Your task to perform on an android device: check out phone information Image 0: 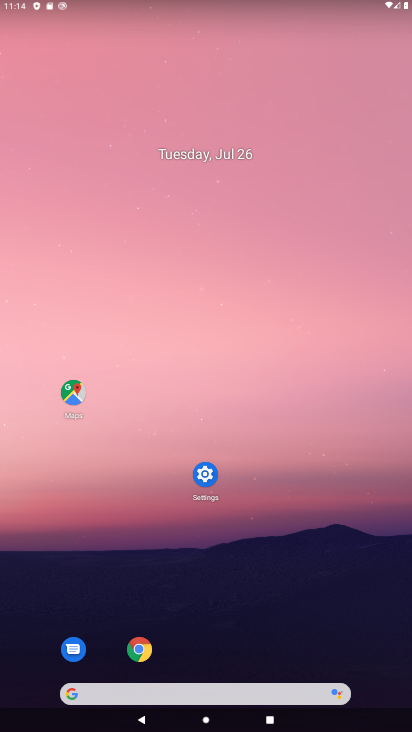
Step 0: drag from (305, 228) to (305, 119)
Your task to perform on an android device: check out phone information Image 1: 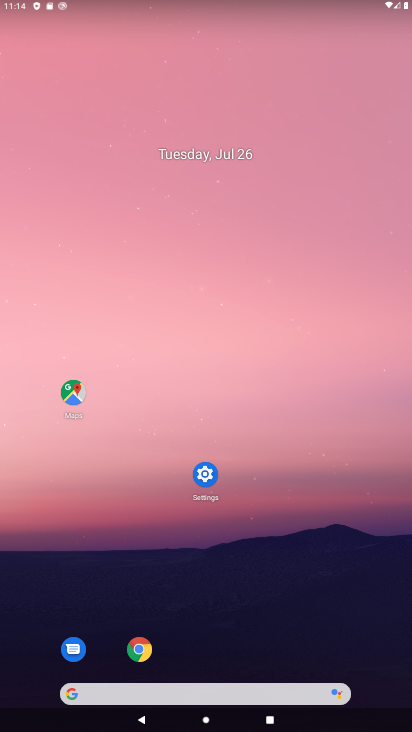
Step 1: drag from (257, 520) to (235, 68)
Your task to perform on an android device: check out phone information Image 2: 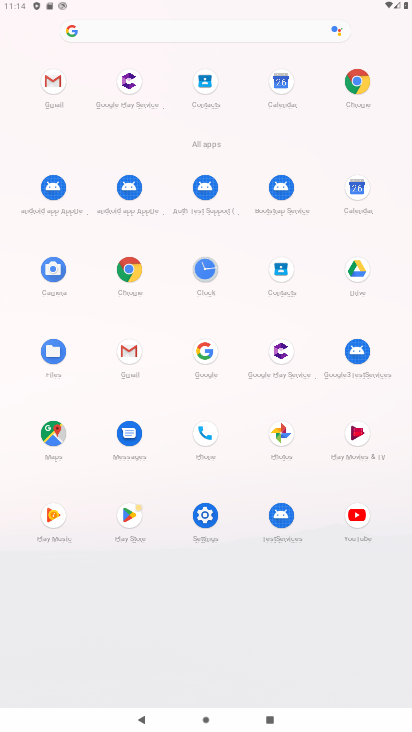
Step 2: click (201, 516)
Your task to perform on an android device: check out phone information Image 3: 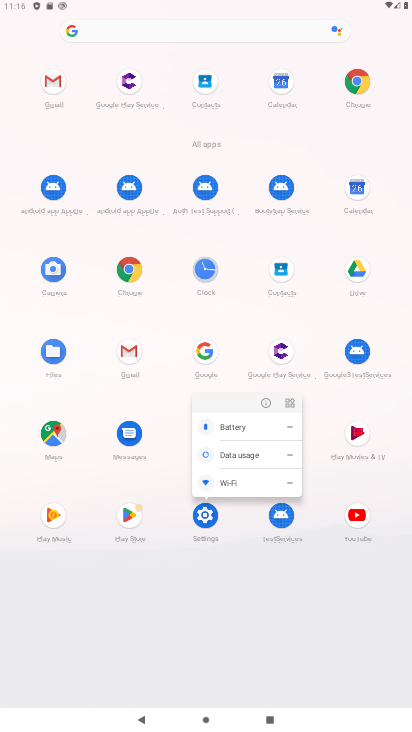
Step 3: click (204, 519)
Your task to perform on an android device: check out phone information Image 4: 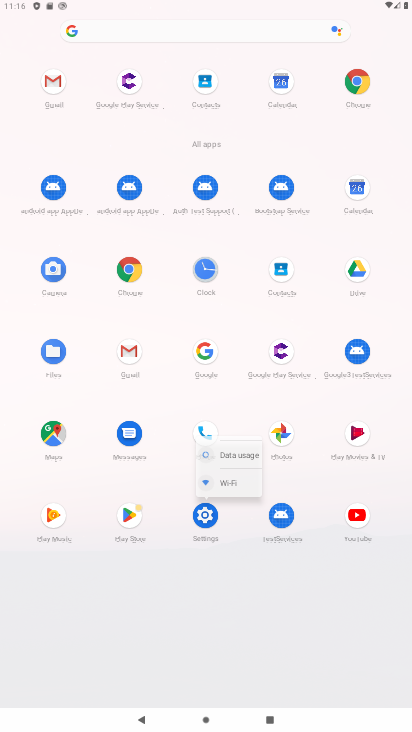
Step 4: click (212, 513)
Your task to perform on an android device: check out phone information Image 5: 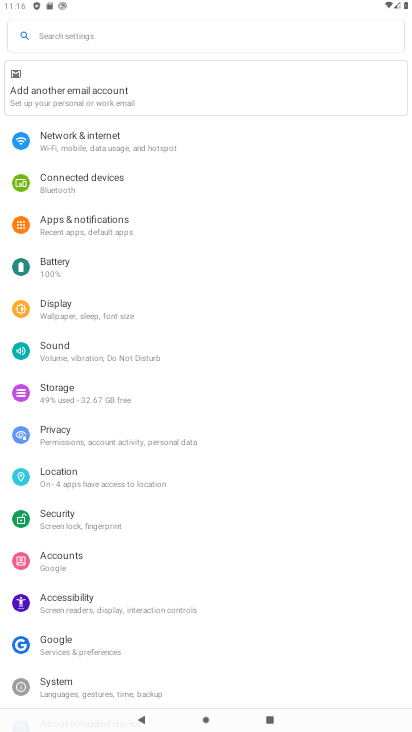
Step 5: drag from (78, 580) to (80, 258)
Your task to perform on an android device: check out phone information Image 6: 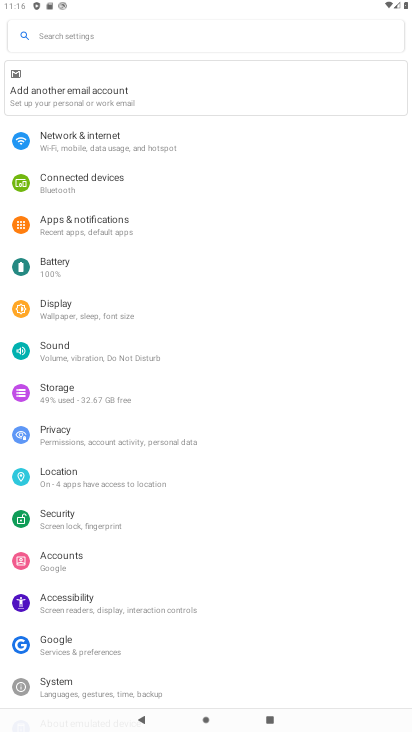
Step 6: drag from (130, 490) to (113, 149)
Your task to perform on an android device: check out phone information Image 7: 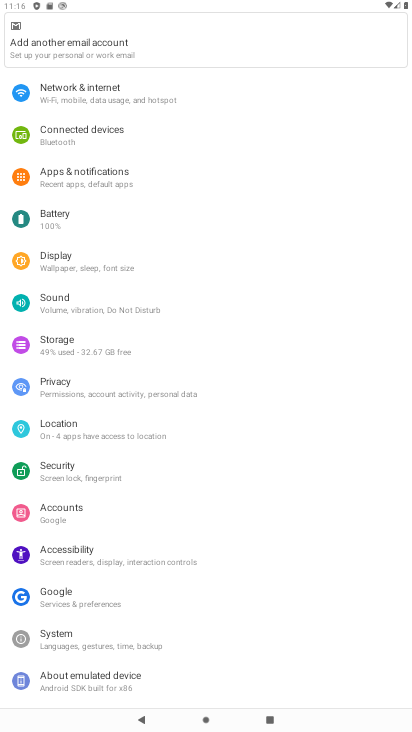
Step 7: click (155, 211)
Your task to perform on an android device: check out phone information Image 8: 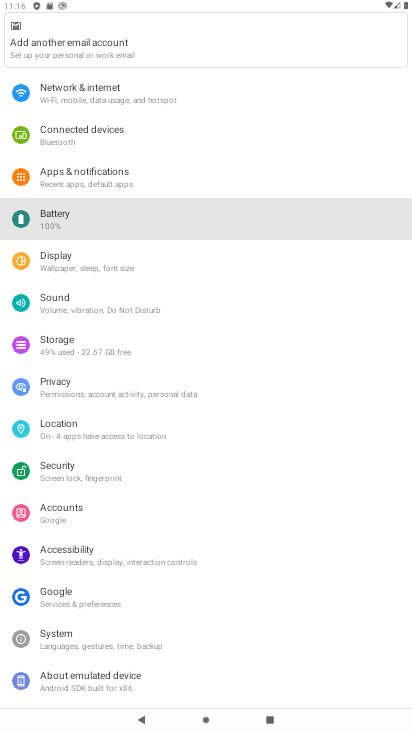
Step 8: click (85, 672)
Your task to perform on an android device: check out phone information Image 9: 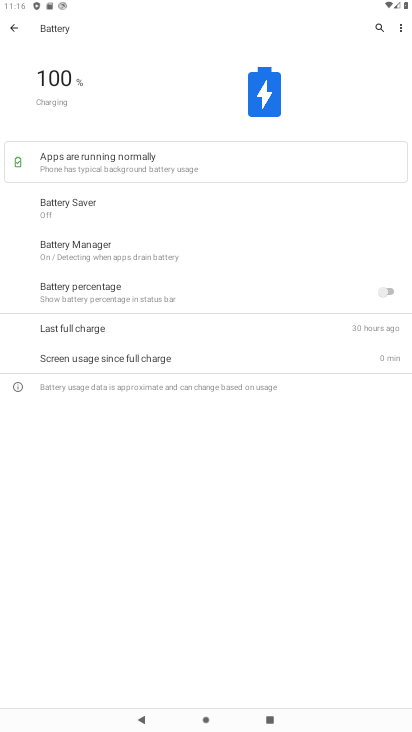
Step 9: click (16, 25)
Your task to perform on an android device: check out phone information Image 10: 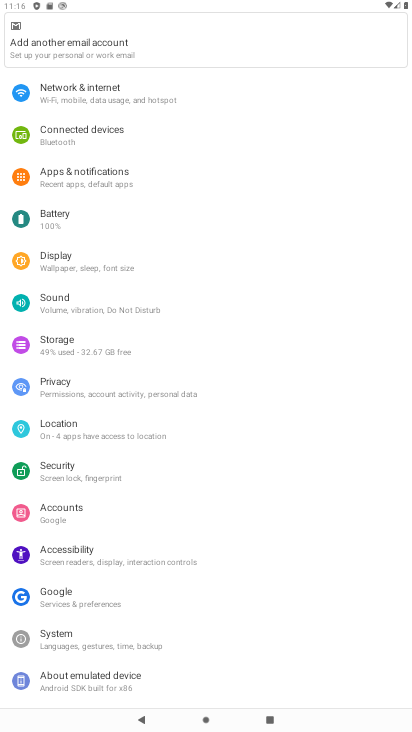
Step 10: click (83, 675)
Your task to perform on an android device: check out phone information Image 11: 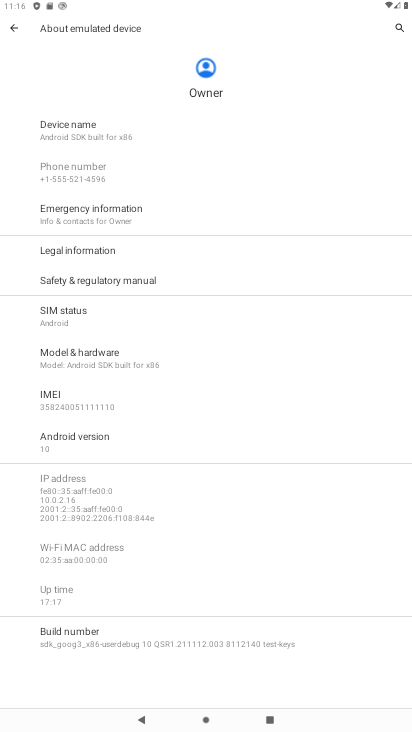
Step 11: task complete